Your task to perform on an android device: Open CNN.com Image 0: 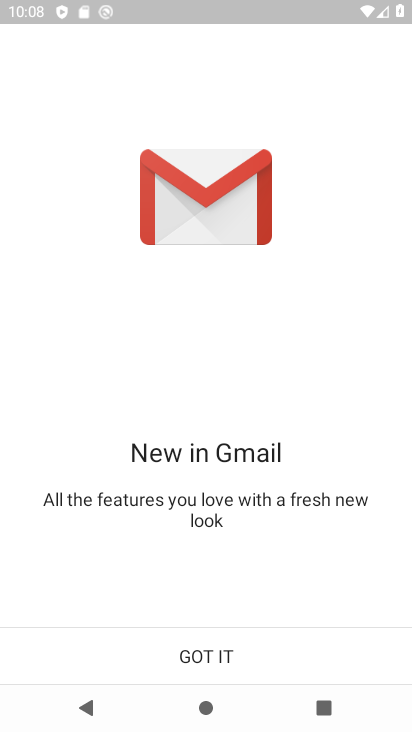
Step 0: press back button
Your task to perform on an android device: Open CNN.com Image 1: 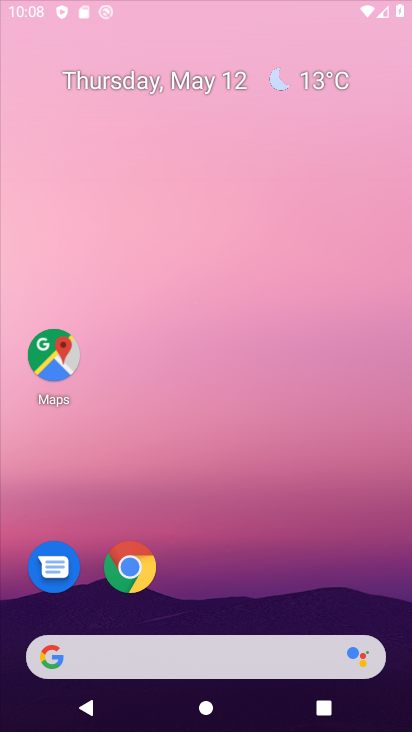
Step 1: press home button
Your task to perform on an android device: Open CNN.com Image 2: 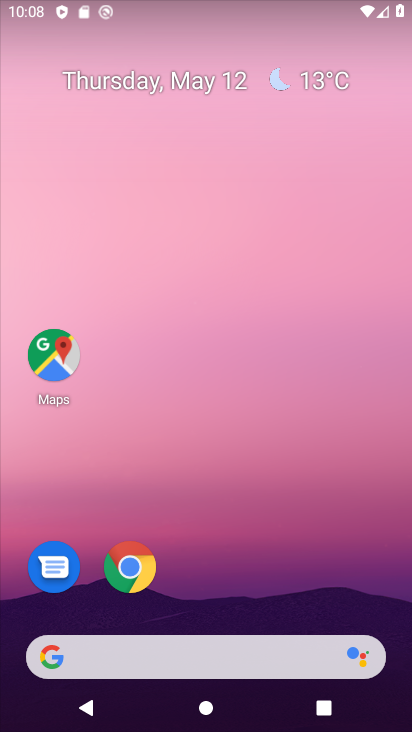
Step 2: click (132, 570)
Your task to perform on an android device: Open CNN.com Image 3: 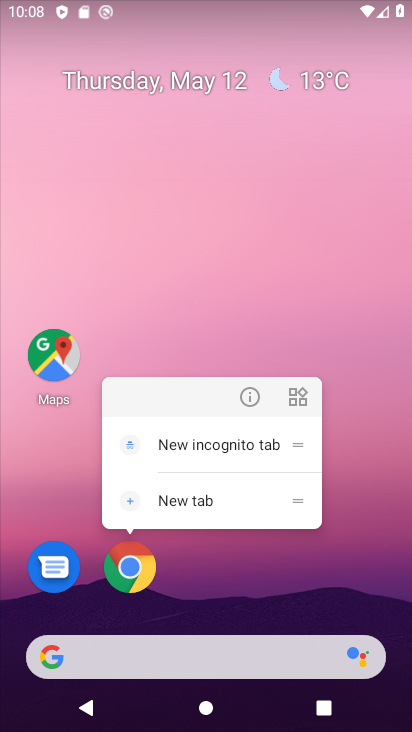
Step 3: click (170, 649)
Your task to perform on an android device: Open CNN.com Image 4: 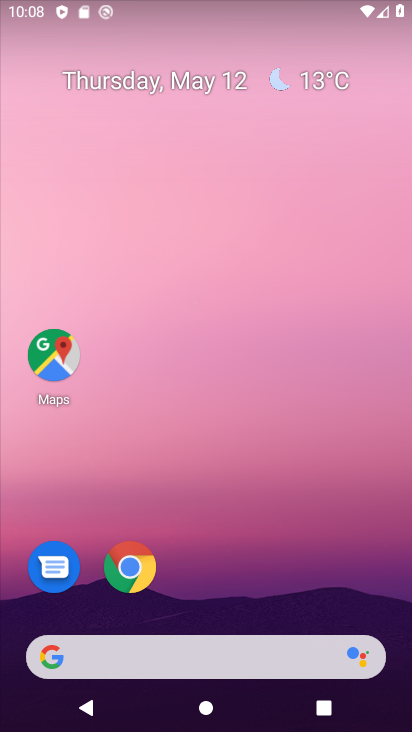
Step 4: click (196, 657)
Your task to perform on an android device: Open CNN.com Image 5: 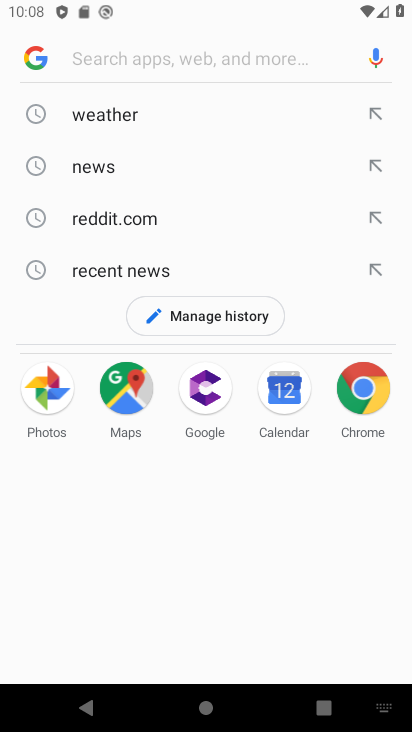
Step 5: type "CNN.com"
Your task to perform on an android device: Open CNN.com Image 6: 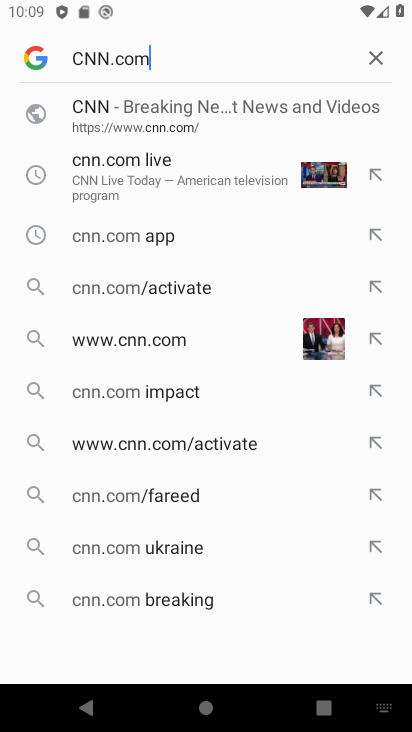
Step 6: click (155, 113)
Your task to perform on an android device: Open CNN.com Image 7: 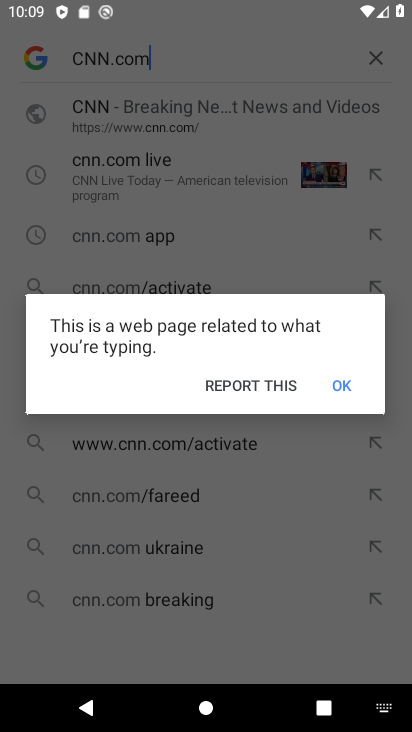
Step 7: click (352, 386)
Your task to perform on an android device: Open CNN.com Image 8: 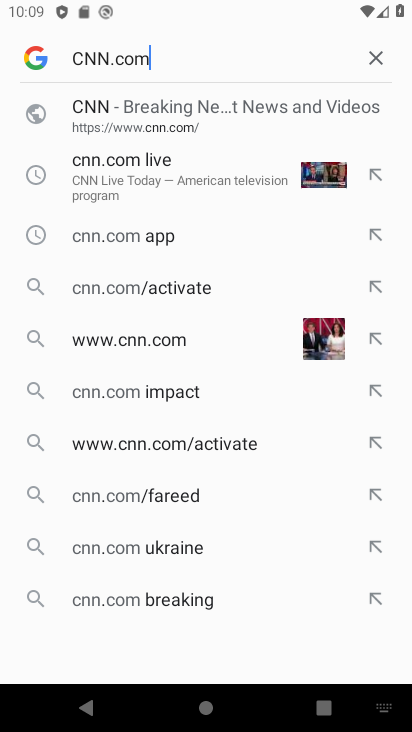
Step 8: click (134, 131)
Your task to perform on an android device: Open CNN.com Image 9: 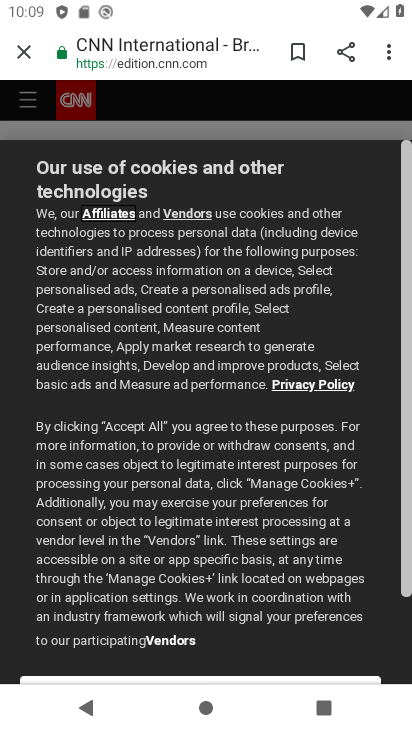
Step 9: task complete